Your task to perform on an android device: Find coffee shops on Maps Image 0: 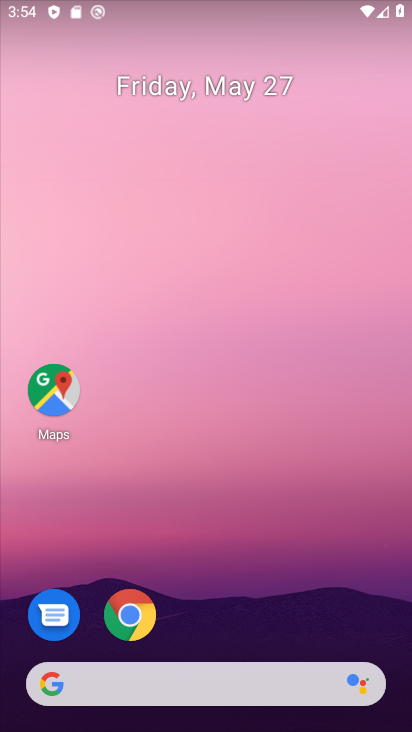
Step 0: drag from (194, 635) to (309, 115)
Your task to perform on an android device: Find coffee shops on Maps Image 1: 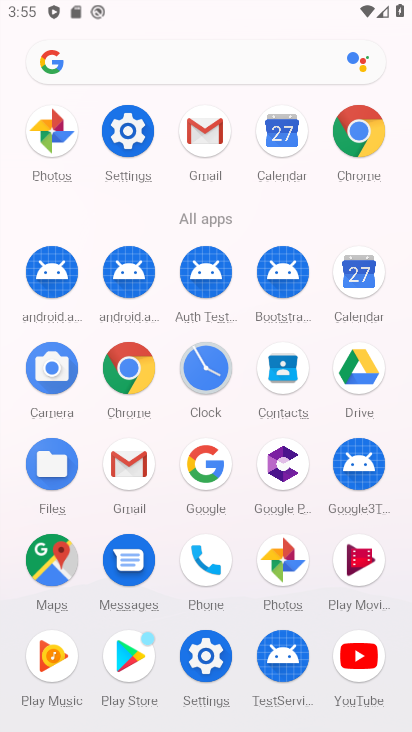
Step 1: click (34, 570)
Your task to perform on an android device: Find coffee shops on Maps Image 2: 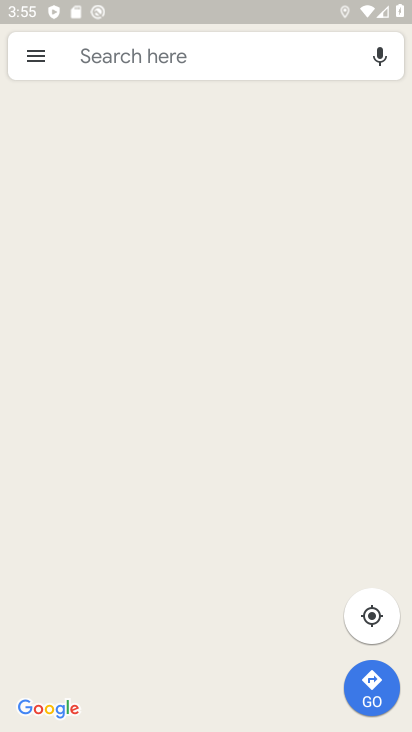
Step 2: click (179, 67)
Your task to perform on an android device: Find coffee shops on Maps Image 3: 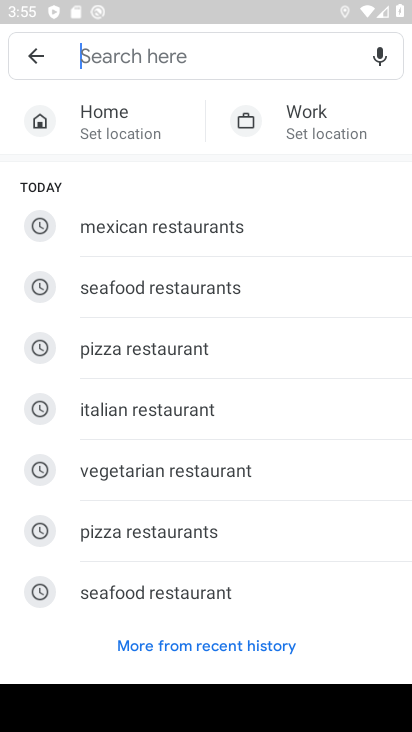
Step 3: type "Coffee shops"
Your task to perform on an android device: Find coffee shops on Maps Image 4: 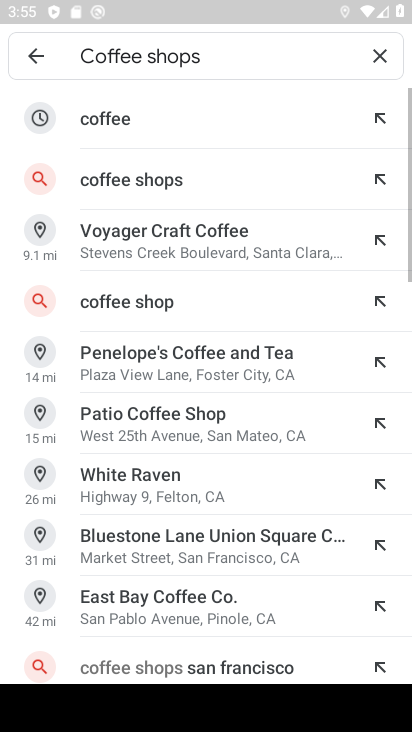
Step 4: click (187, 175)
Your task to perform on an android device: Find coffee shops on Maps Image 5: 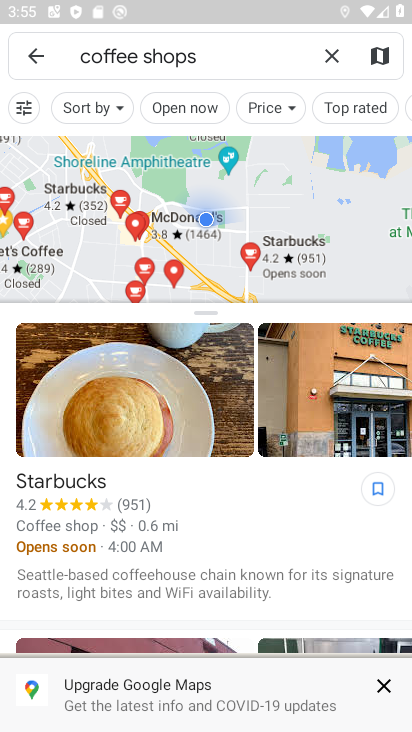
Step 5: click (396, 690)
Your task to perform on an android device: Find coffee shops on Maps Image 6: 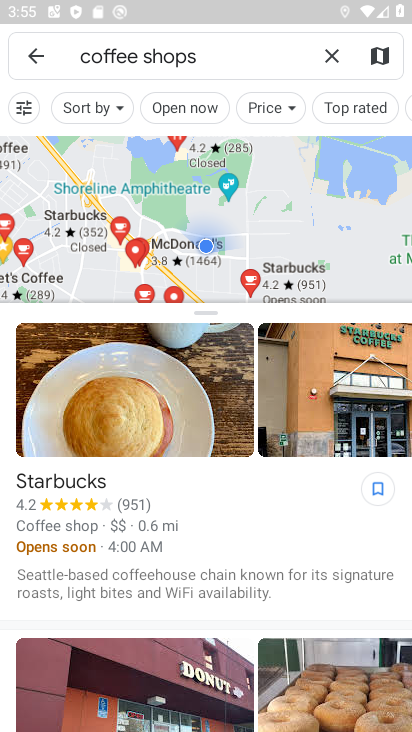
Step 6: task complete